Your task to perform on an android device: turn on showing notifications on the lock screen Image 0: 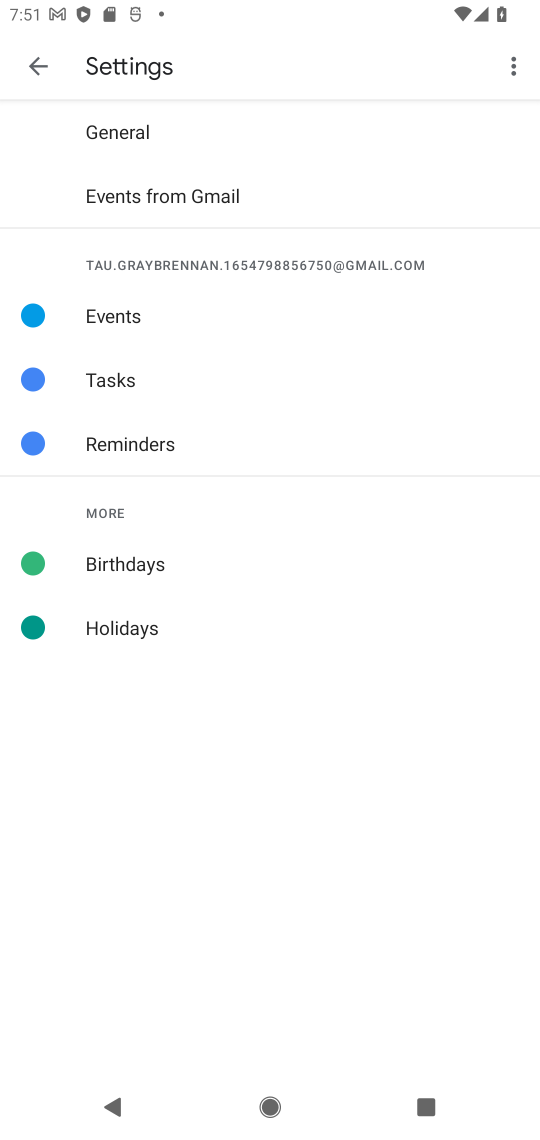
Step 0: press home button
Your task to perform on an android device: turn on showing notifications on the lock screen Image 1: 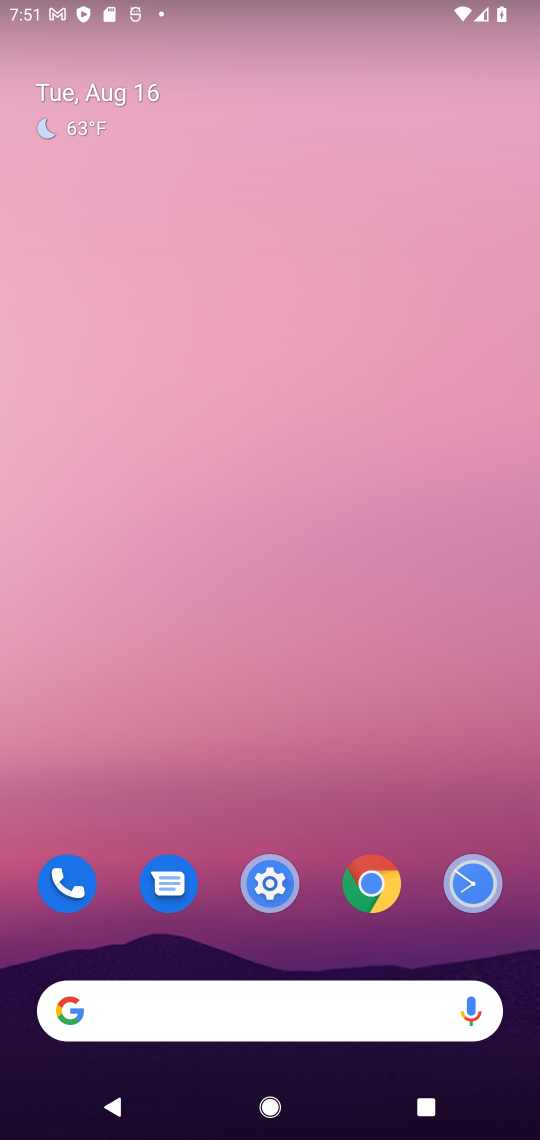
Step 1: click (277, 893)
Your task to perform on an android device: turn on showing notifications on the lock screen Image 2: 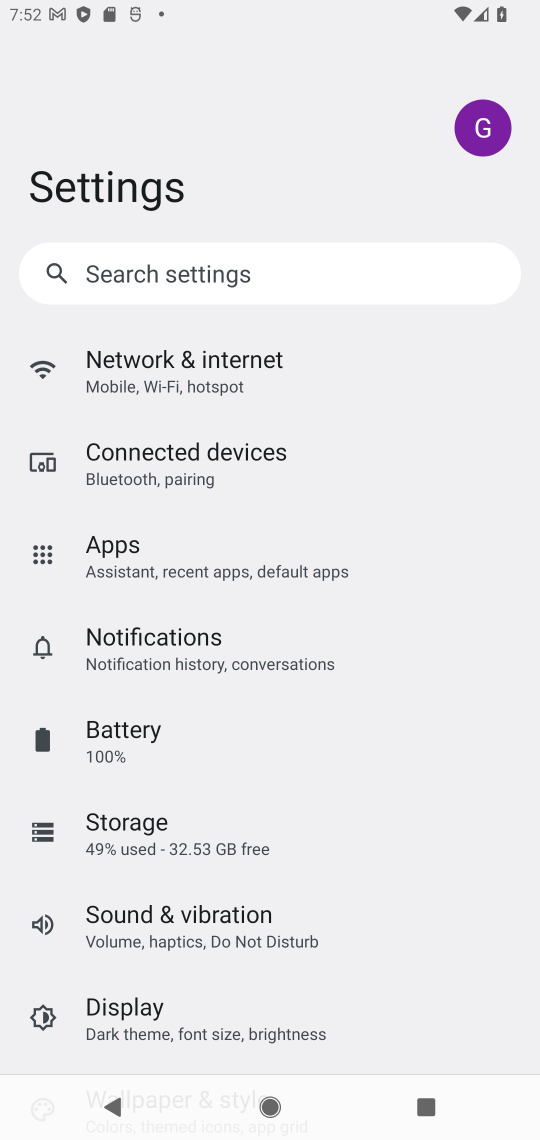
Step 2: click (240, 631)
Your task to perform on an android device: turn on showing notifications on the lock screen Image 3: 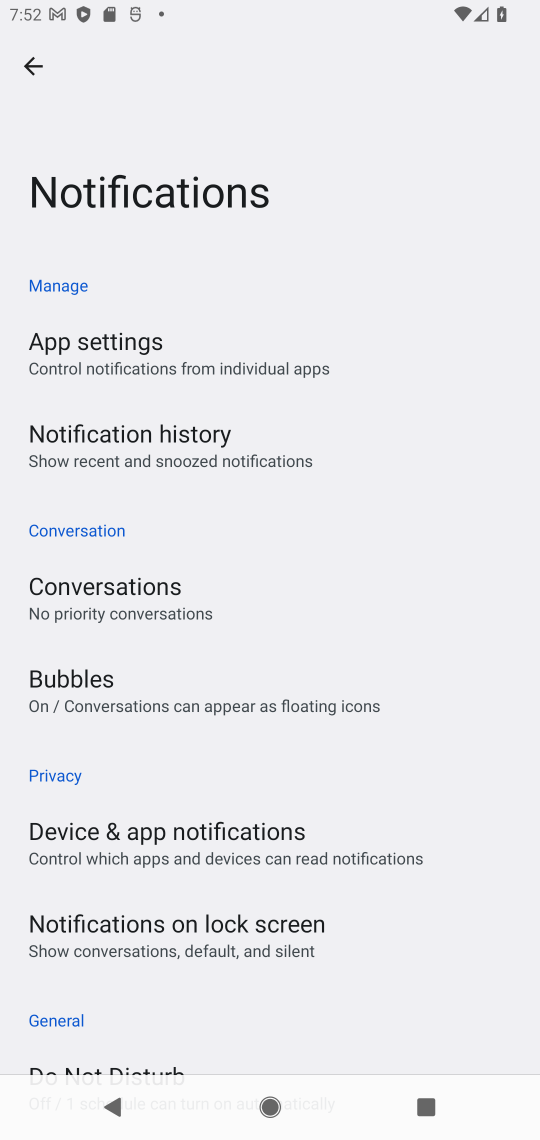
Step 3: click (318, 929)
Your task to perform on an android device: turn on showing notifications on the lock screen Image 4: 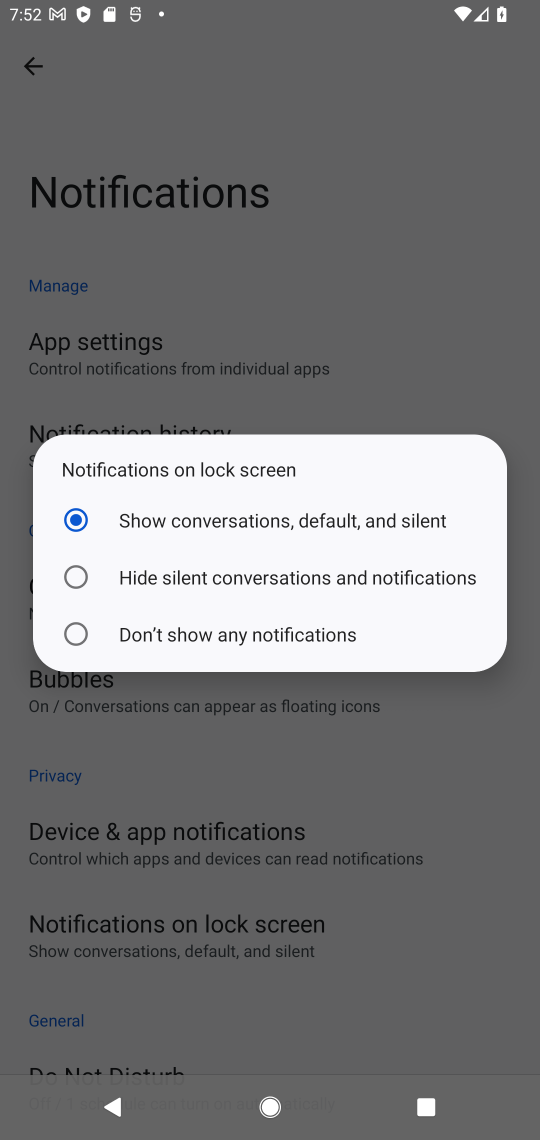
Step 4: task complete